Your task to perform on an android device: turn on bluetooth scan Image 0: 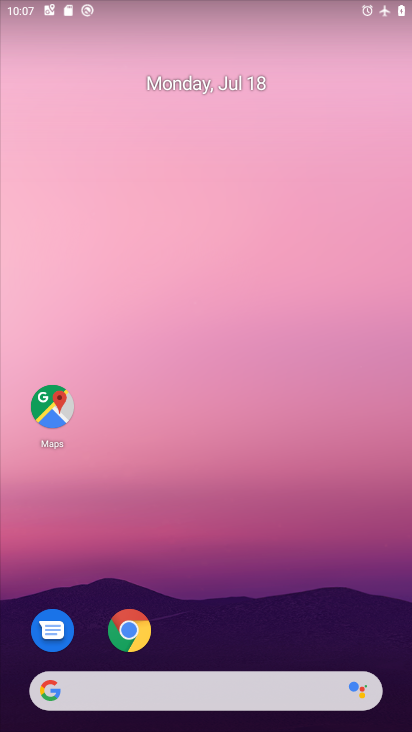
Step 0: drag from (225, 643) to (229, 236)
Your task to perform on an android device: turn on bluetooth scan Image 1: 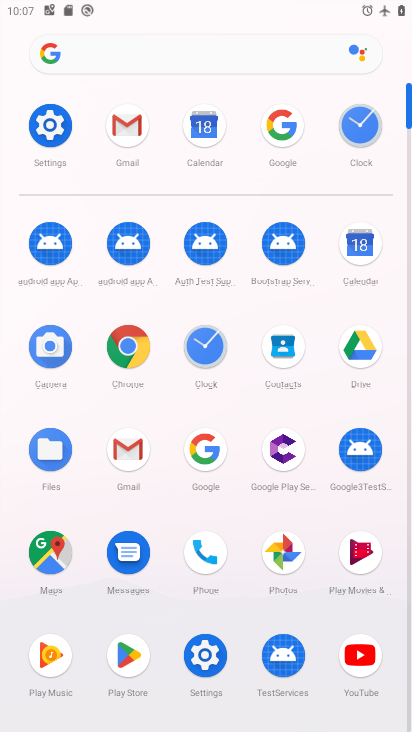
Step 1: click (70, 128)
Your task to perform on an android device: turn on bluetooth scan Image 2: 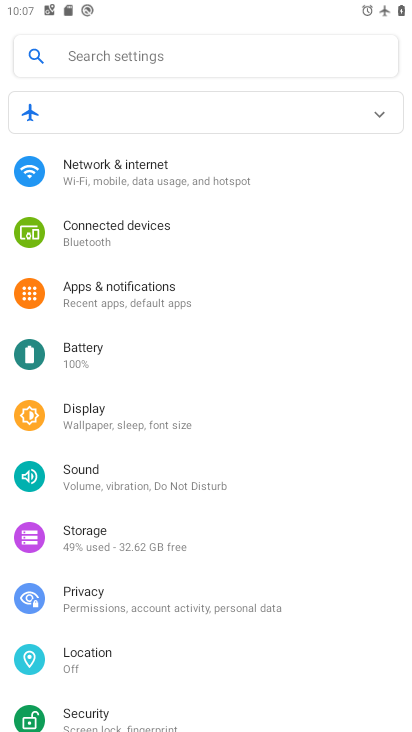
Step 2: click (184, 184)
Your task to perform on an android device: turn on bluetooth scan Image 3: 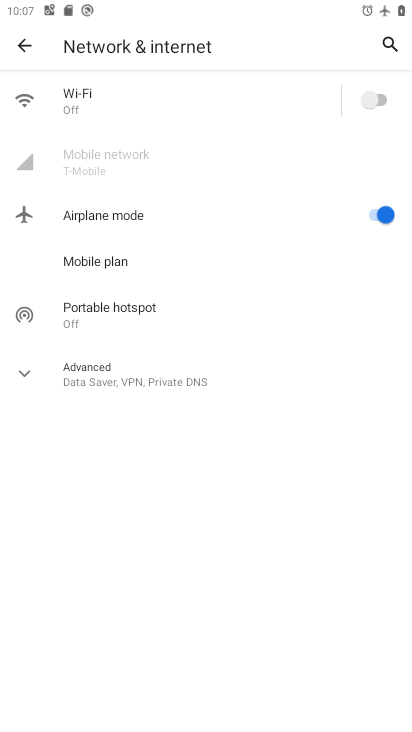
Step 3: click (22, 57)
Your task to perform on an android device: turn on bluetooth scan Image 4: 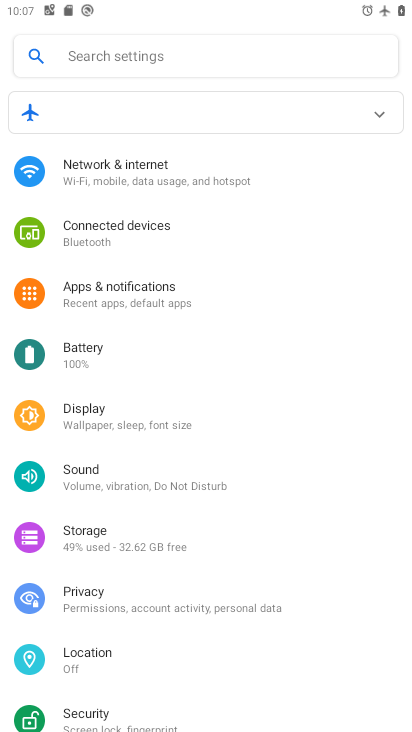
Step 4: click (157, 657)
Your task to perform on an android device: turn on bluetooth scan Image 5: 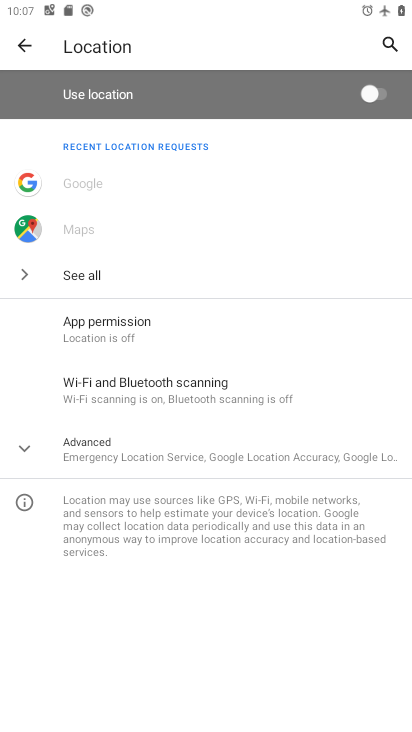
Step 5: click (178, 379)
Your task to perform on an android device: turn on bluetooth scan Image 6: 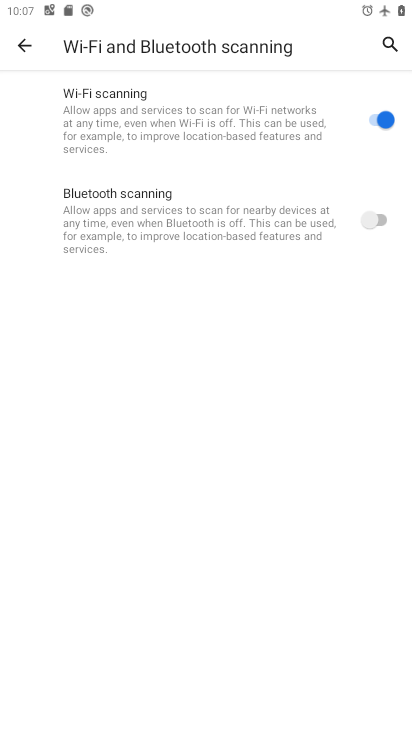
Step 6: click (373, 224)
Your task to perform on an android device: turn on bluetooth scan Image 7: 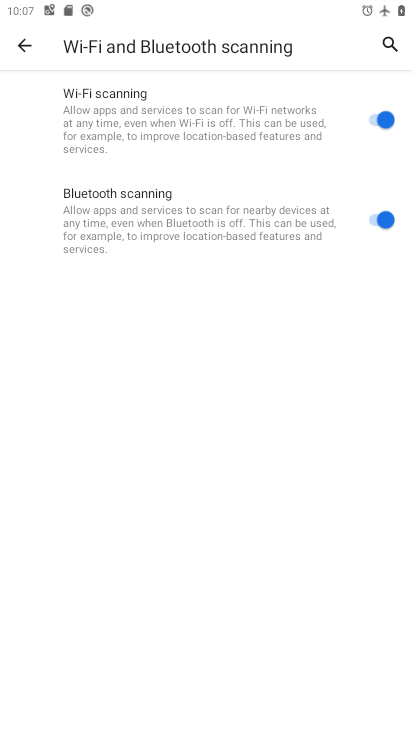
Step 7: task complete